Your task to perform on an android device: add a label to a message in the gmail app Image 0: 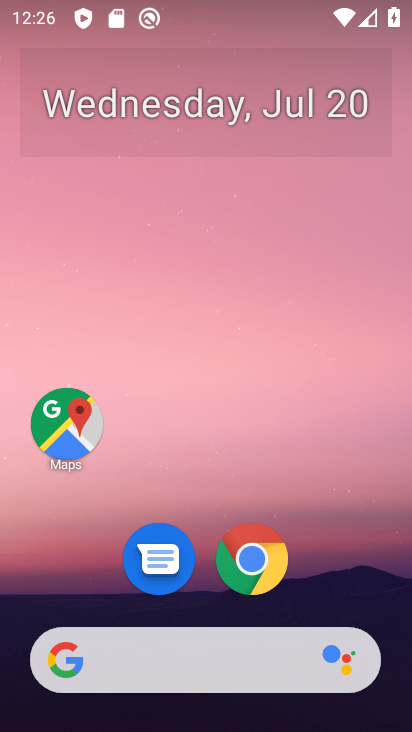
Step 0: drag from (369, 581) to (379, 140)
Your task to perform on an android device: add a label to a message in the gmail app Image 1: 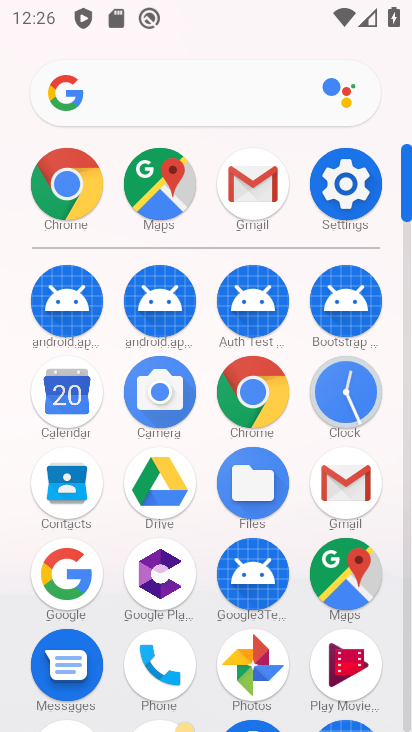
Step 1: click (349, 483)
Your task to perform on an android device: add a label to a message in the gmail app Image 2: 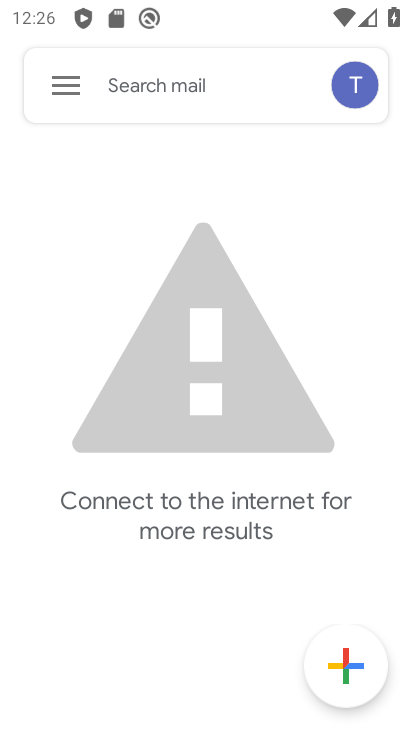
Step 2: click (56, 96)
Your task to perform on an android device: add a label to a message in the gmail app Image 3: 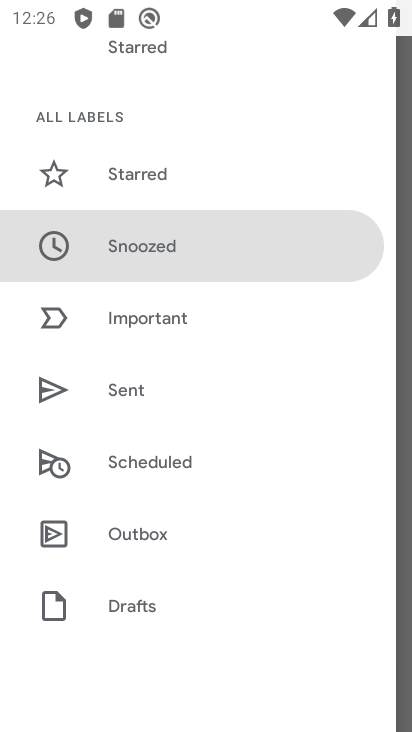
Step 3: drag from (258, 199) to (269, 311)
Your task to perform on an android device: add a label to a message in the gmail app Image 4: 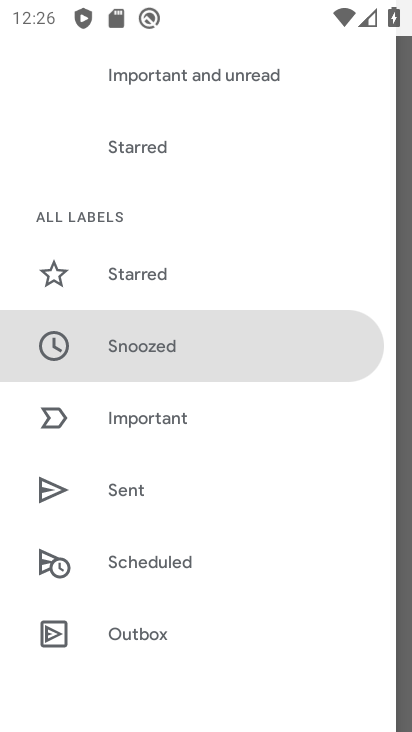
Step 4: drag from (272, 170) to (268, 299)
Your task to perform on an android device: add a label to a message in the gmail app Image 5: 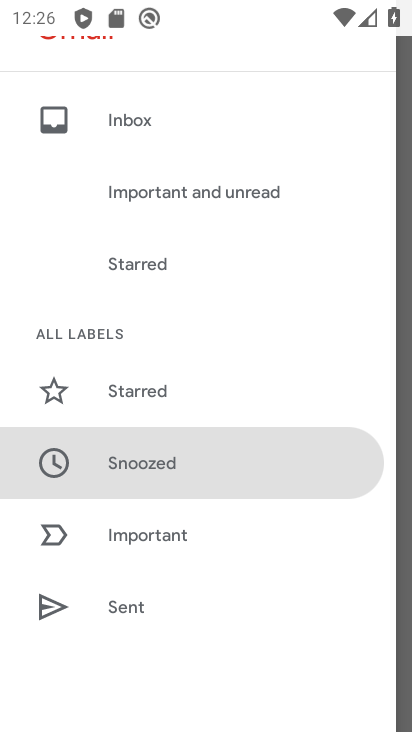
Step 5: click (143, 129)
Your task to perform on an android device: add a label to a message in the gmail app Image 6: 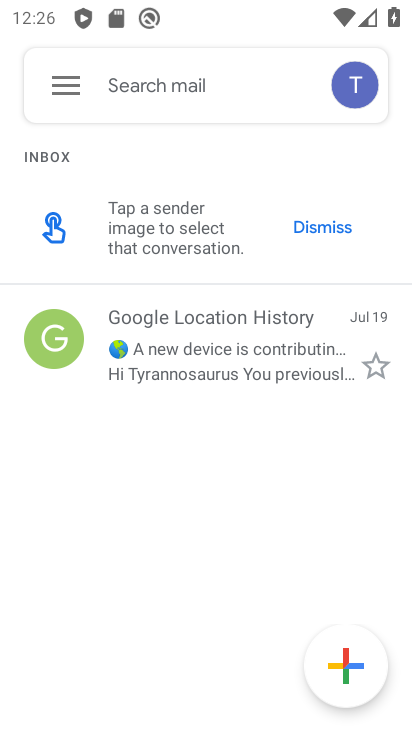
Step 6: click (234, 354)
Your task to perform on an android device: add a label to a message in the gmail app Image 7: 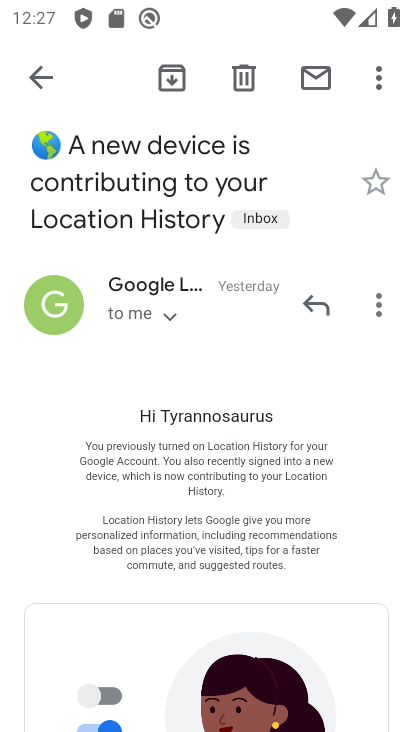
Step 7: click (262, 216)
Your task to perform on an android device: add a label to a message in the gmail app Image 8: 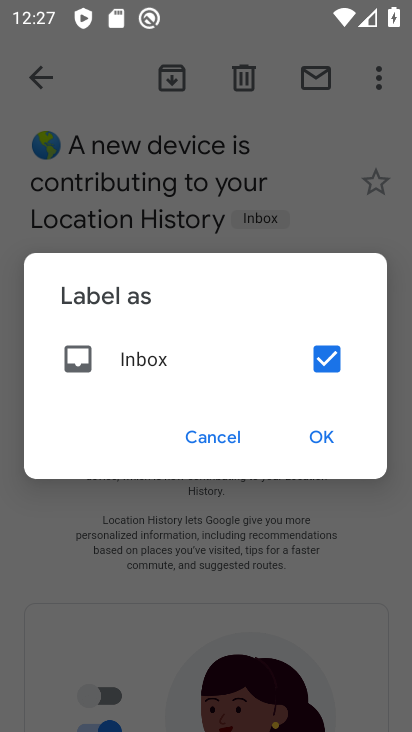
Step 8: click (217, 446)
Your task to perform on an android device: add a label to a message in the gmail app Image 9: 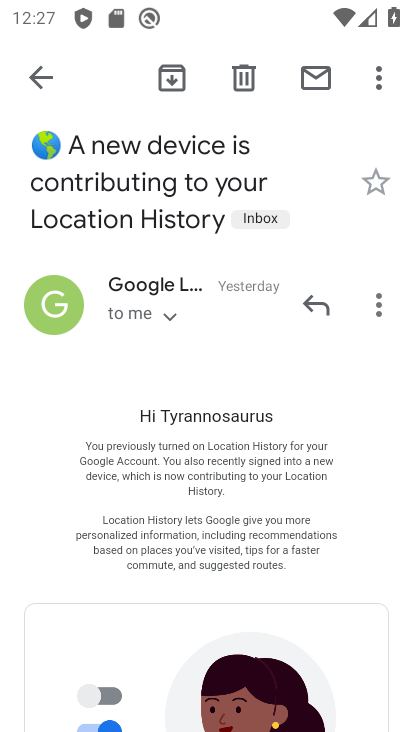
Step 9: click (41, 80)
Your task to perform on an android device: add a label to a message in the gmail app Image 10: 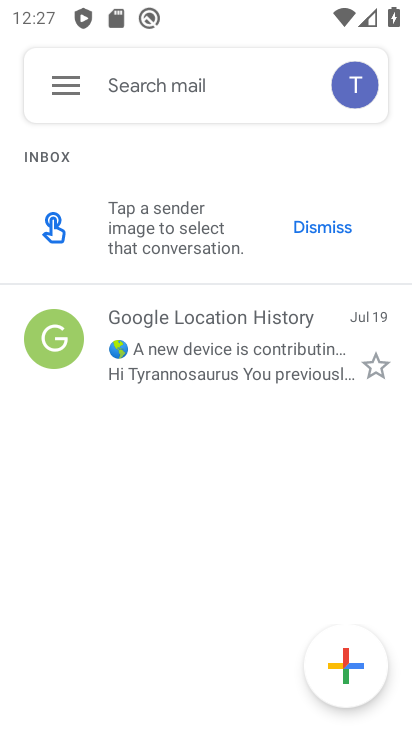
Step 10: click (66, 97)
Your task to perform on an android device: add a label to a message in the gmail app Image 11: 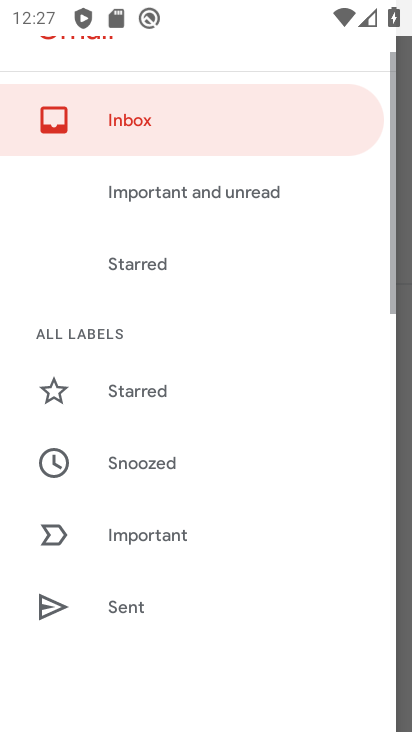
Step 11: drag from (243, 502) to (244, 274)
Your task to perform on an android device: add a label to a message in the gmail app Image 12: 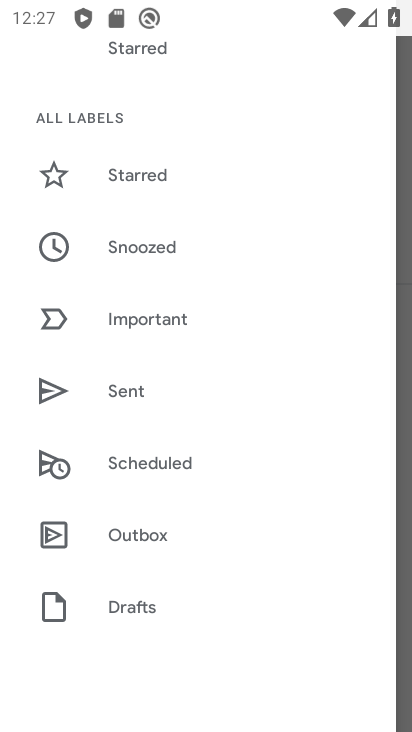
Step 12: drag from (265, 552) to (278, 329)
Your task to perform on an android device: add a label to a message in the gmail app Image 13: 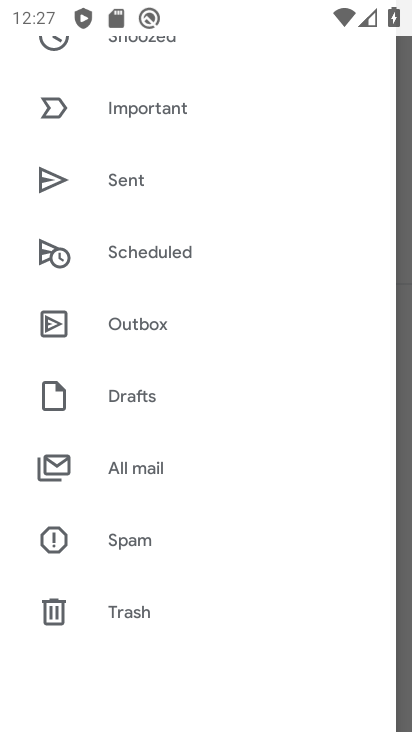
Step 13: click (216, 467)
Your task to perform on an android device: add a label to a message in the gmail app Image 14: 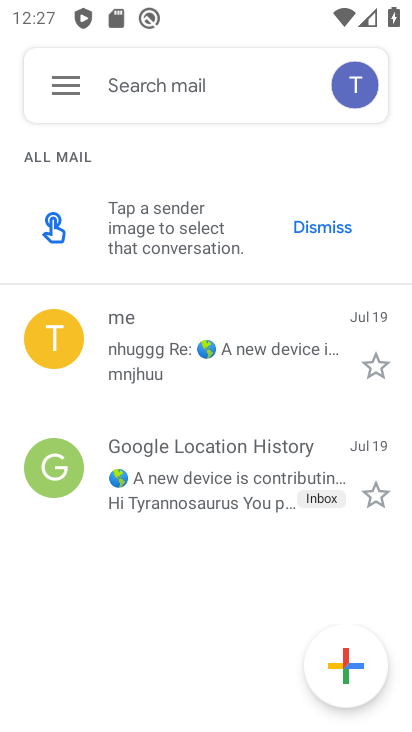
Step 14: click (242, 342)
Your task to perform on an android device: add a label to a message in the gmail app Image 15: 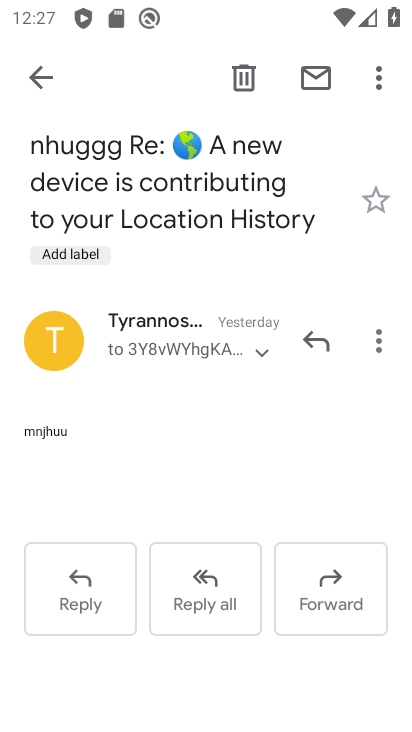
Step 15: click (57, 247)
Your task to perform on an android device: add a label to a message in the gmail app Image 16: 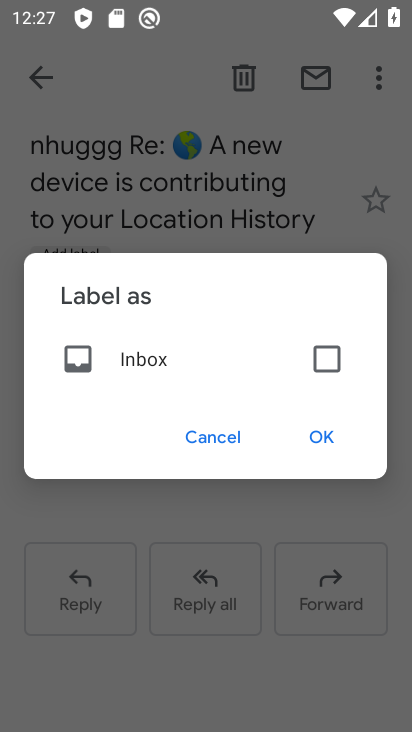
Step 16: click (338, 360)
Your task to perform on an android device: add a label to a message in the gmail app Image 17: 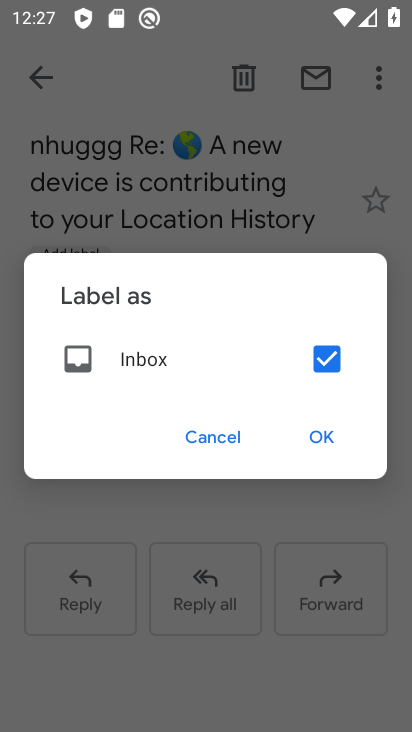
Step 17: click (325, 442)
Your task to perform on an android device: add a label to a message in the gmail app Image 18: 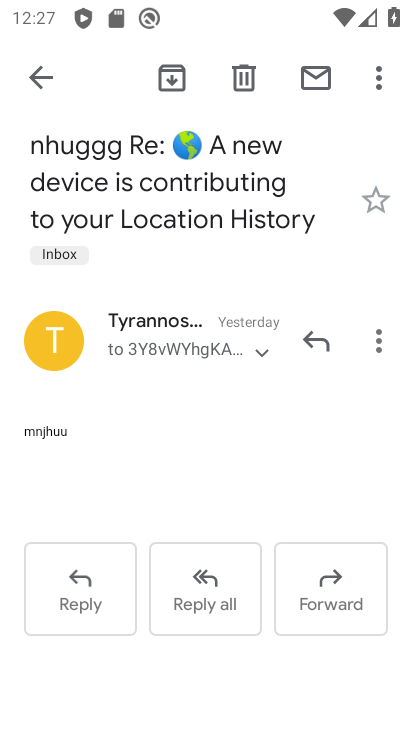
Step 18: task complete